Your task to perform on an android device: Search for sushi restaurants on Maps Image 0: 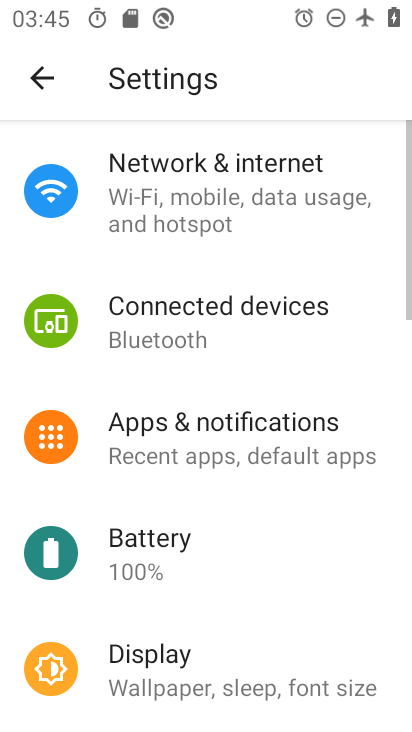
Step 0: press home button
Your task to perform on an android device: Search for sushi restaurants on Maps Image 1: 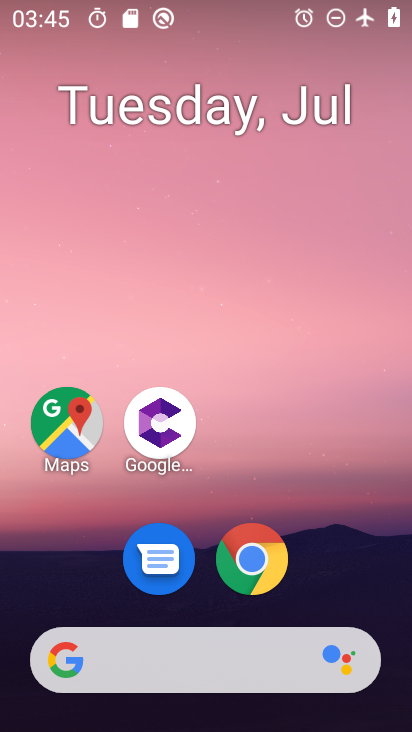
Step 1: drag from (344, 559) to (346, 55)
Your task to perform on an android device: Search for sushi restaurants on Maps Image 2: 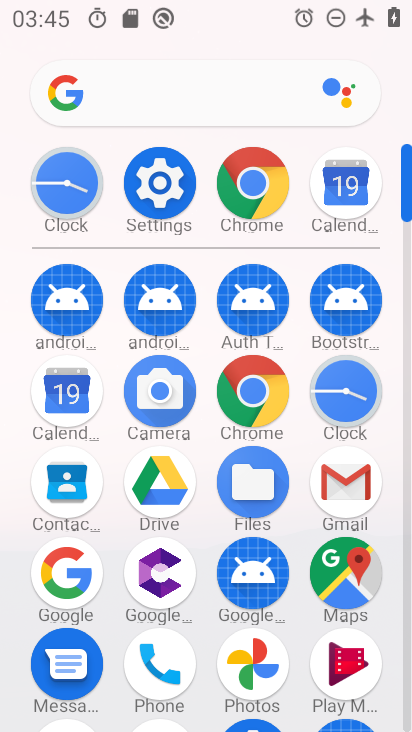
Step 2: click (355, 574)
Your task to perform on an android device: Search for sushi restaurants on Maps Image 3: 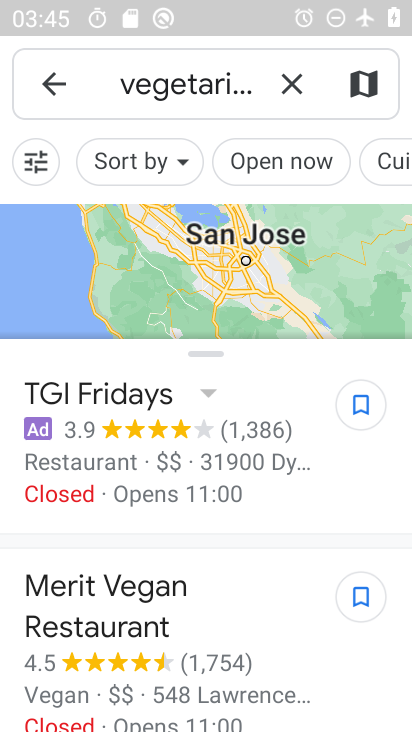
Step 3: press back button
Your task to perform on an android device: Search for sushi restaurants on Maps Image 4: 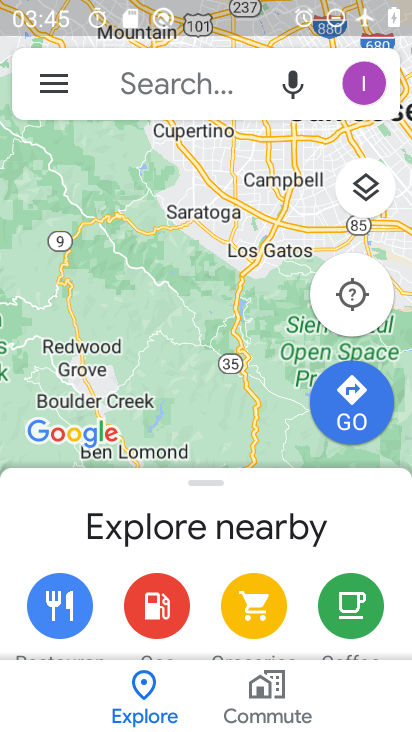
Step 4: click (187, 79)
Your task to perform on an android device: Search for sushi restaurants on Maps Image 5: 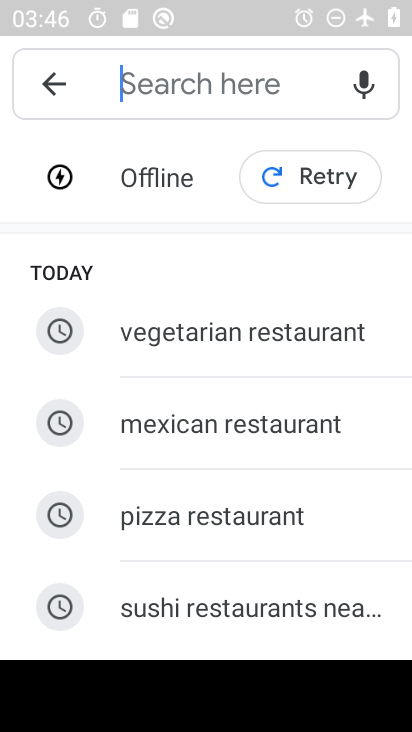
Step 5: type "sushi restaurants"
Your task to perform on an android device: Search for sushi restaurants on Maps Image 6: 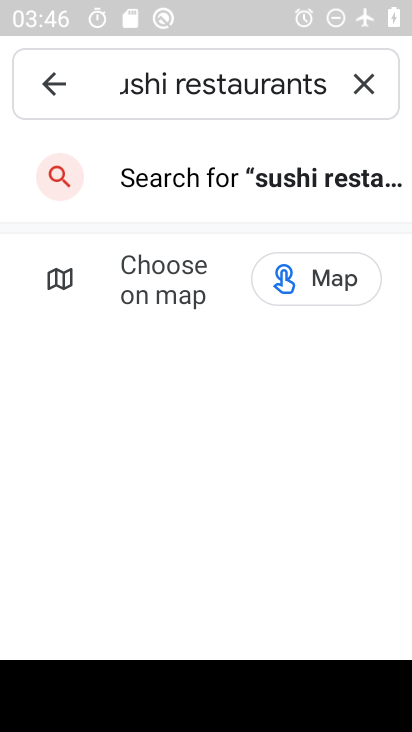
Step 6: task complete